Your task to perform on an android device: clear history in the chrome app Image 0: 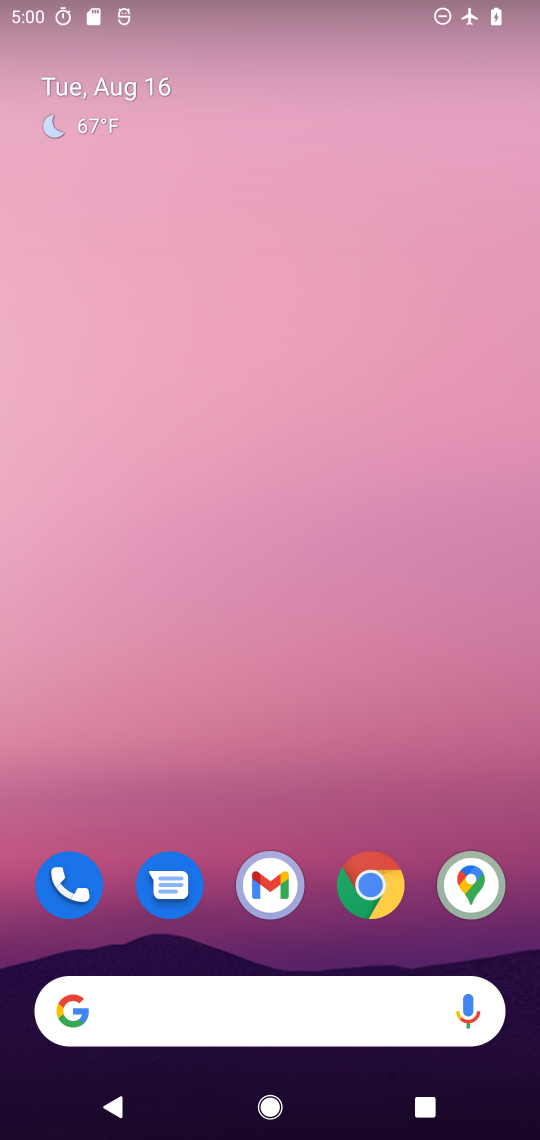
Step 0: drag from (128, 973) to (200, 15)
Your task to perform on an android device: clear history in the chrome app Image 1: 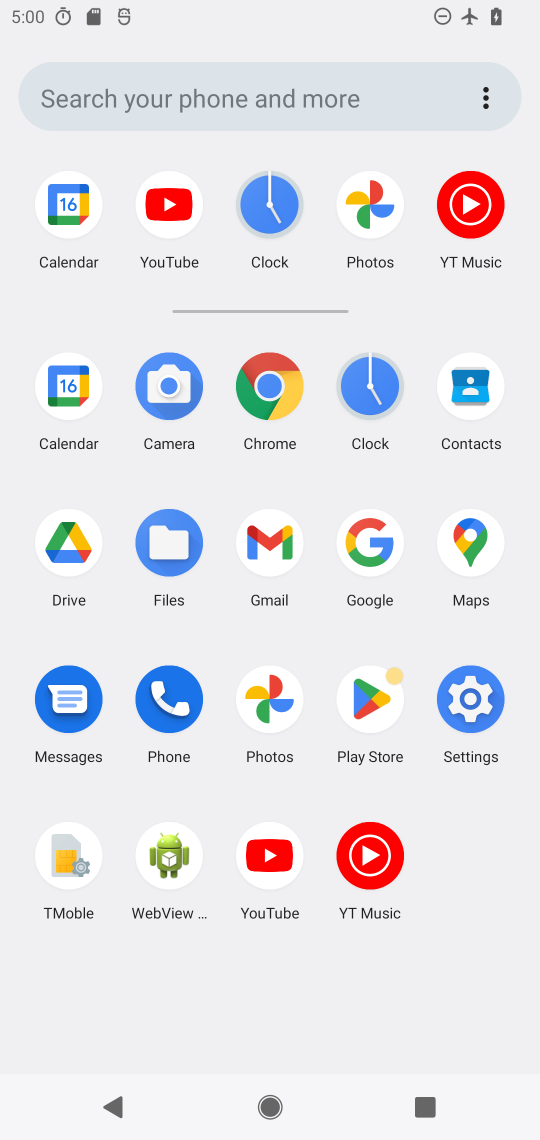
Step 1: click (265, 377)
Your task to perform on an android device: clear history in the chrome app Image 2: 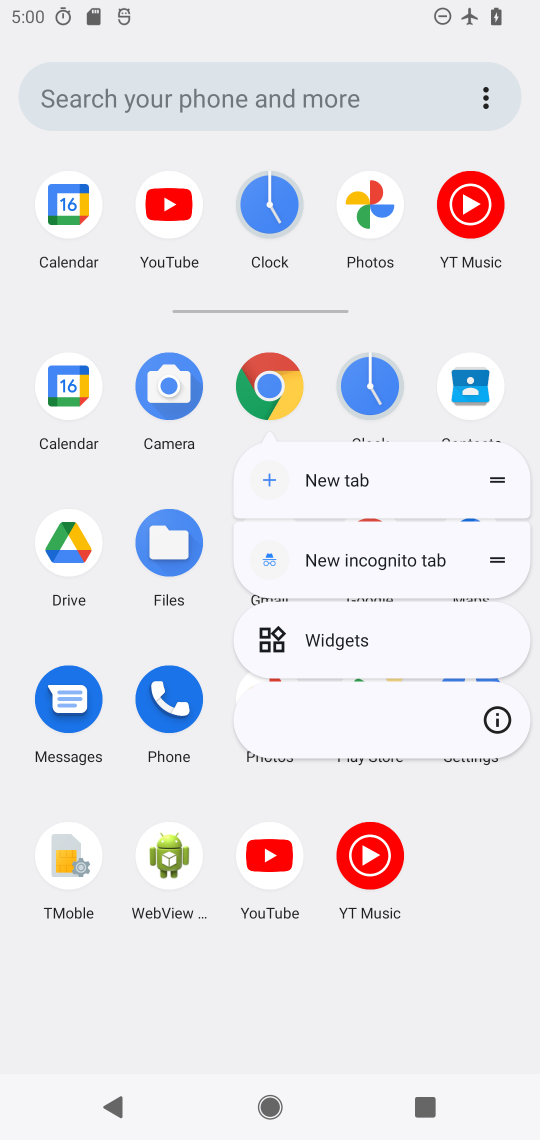
Step 2: click (265, 377)
Your task to perform on an android device: clear history in the chrome app Image 3: 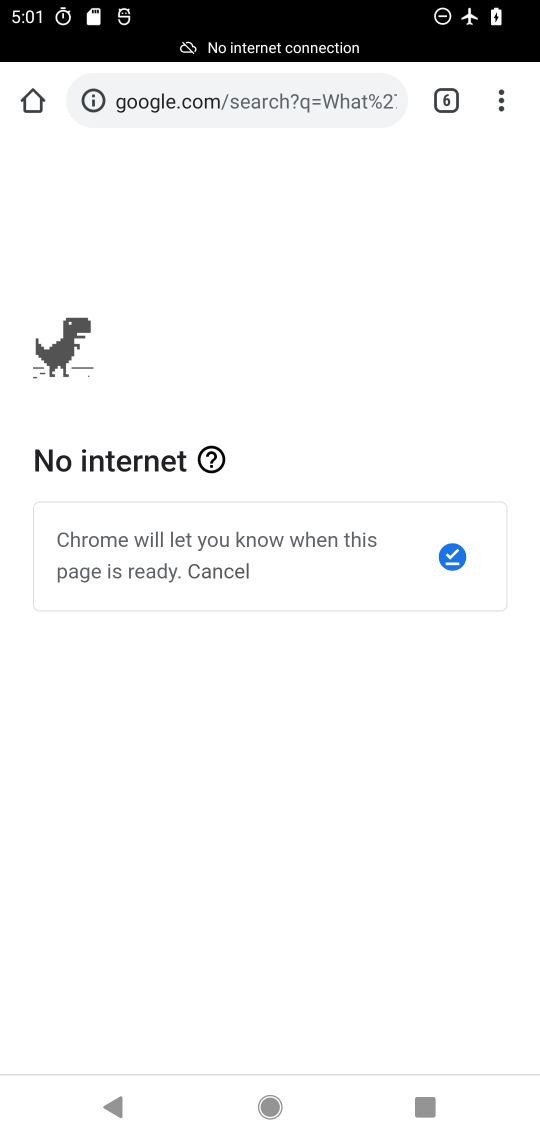
Step 3: click (499, 99)
Your task to perform on an android device: clear history in the chrome app Image 4: 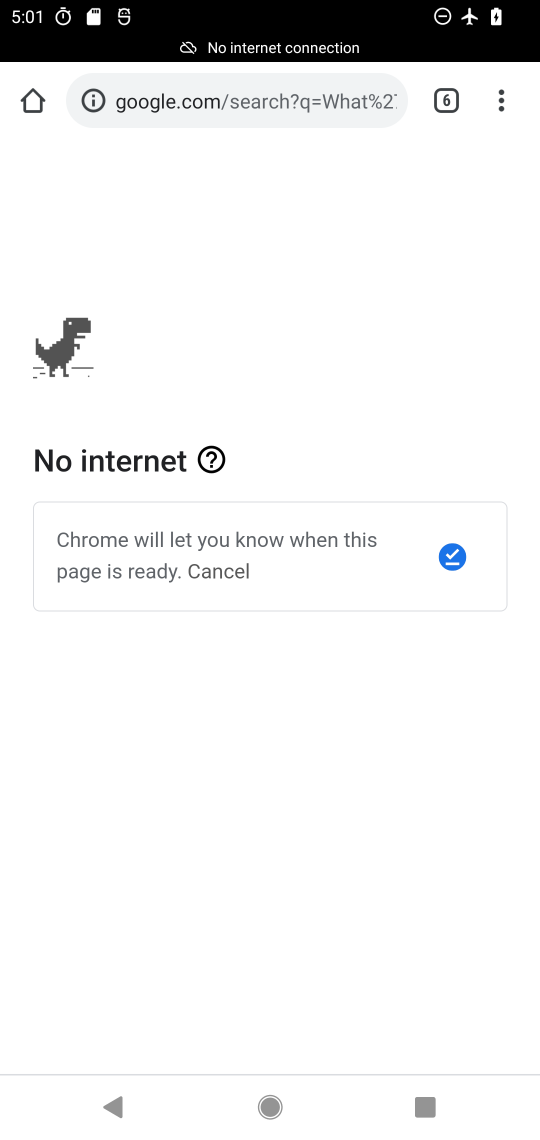
Step 4: click (504, 107)
Your task to perform on an android device: clear history in the chrome app Image 5: 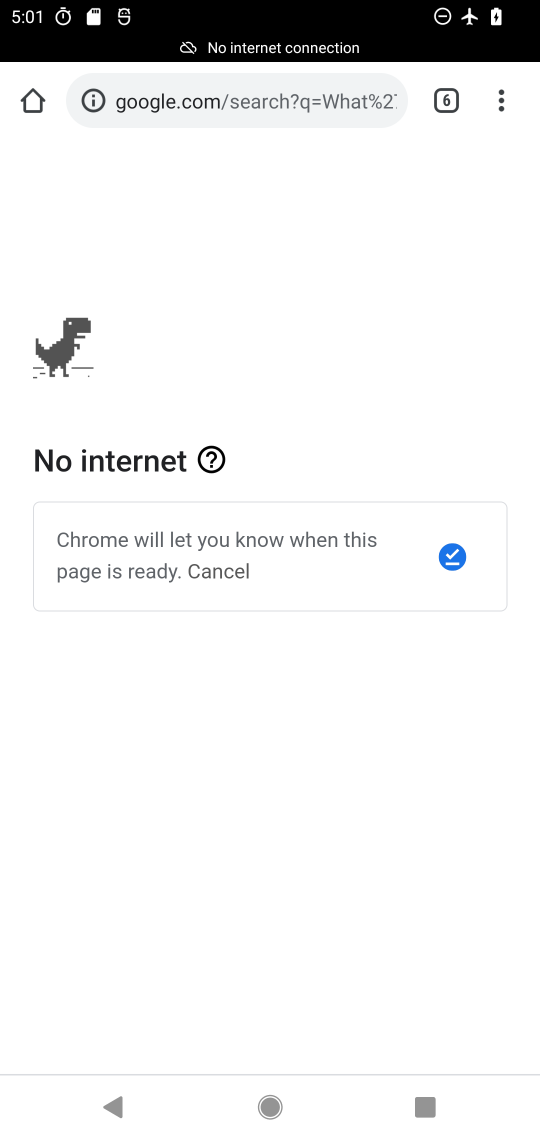
Step 5: click (504, 107)
Your task to perform on an android device: clear history in the chrome app Image 6: 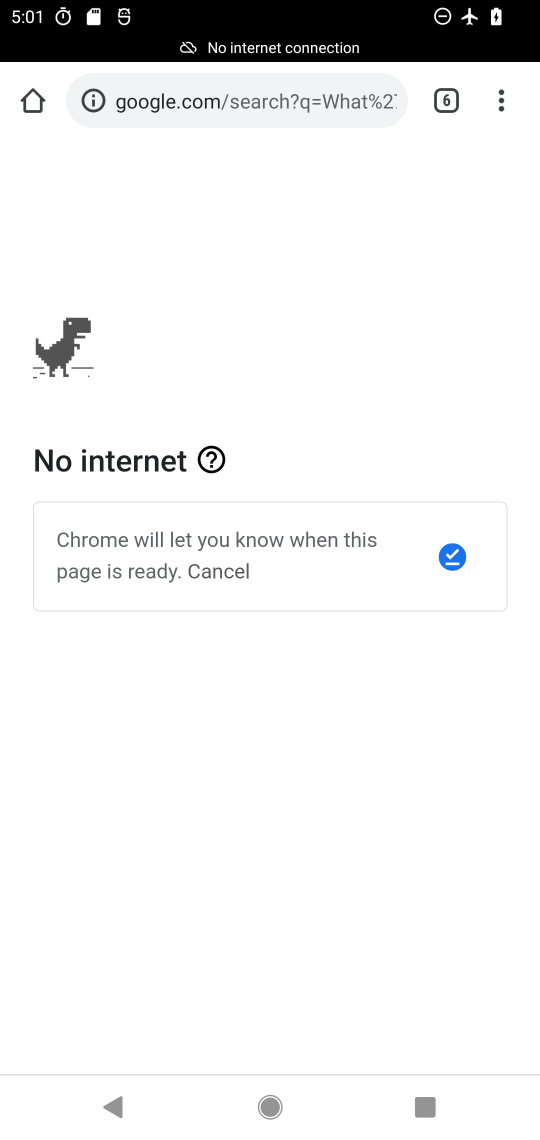
Step 6: click (483, 99)
Your task to perform on an android device: clear history in the chrome app Image 7: 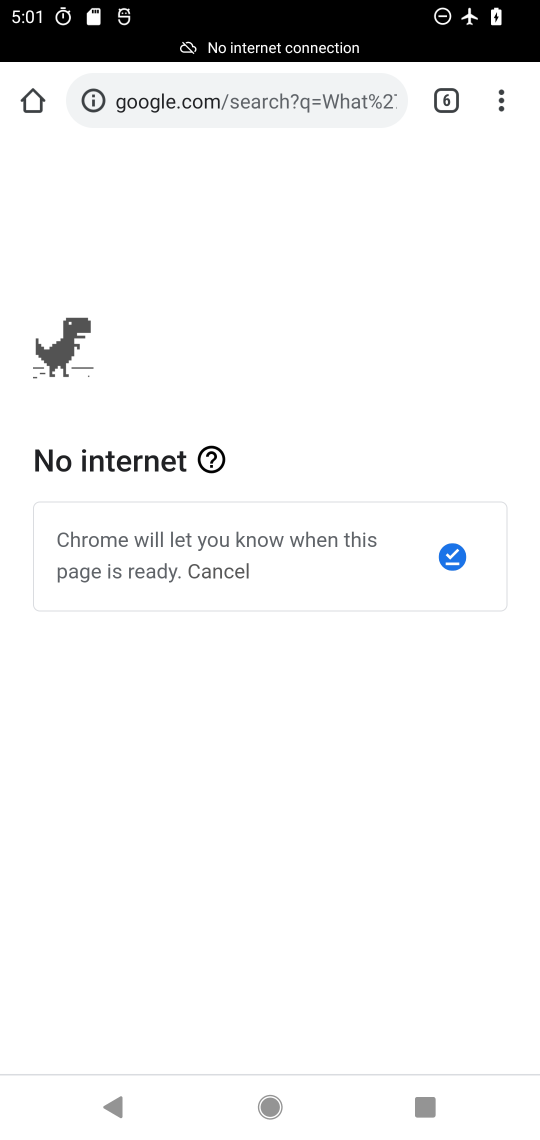
Step 7: click (515, 102)
Your task to perform on an android device: clear history in the chrome app Image 8: 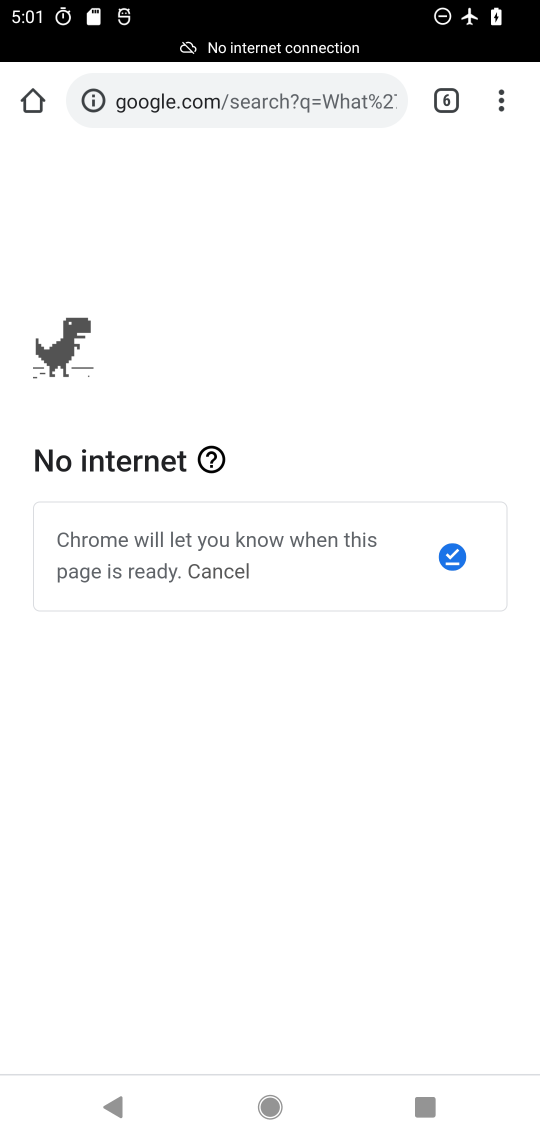
Step 8: click (510, 102)
Your task to perform on an android device: clear history in the chrome app Image 9: 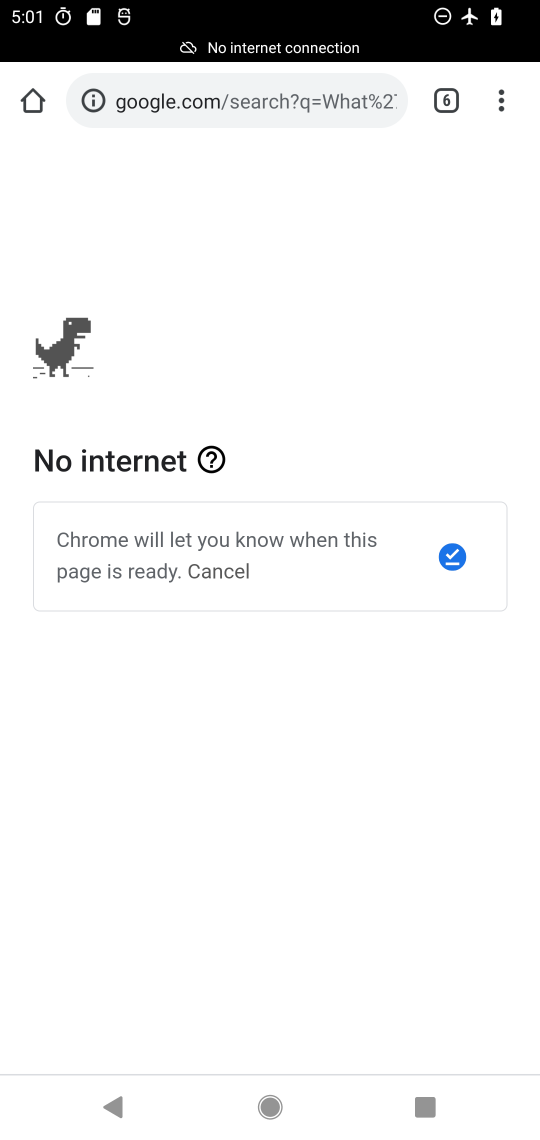
Step 9: click (490, 90)
Your task to perform on an android device: clear history in the chrome app Image 10: 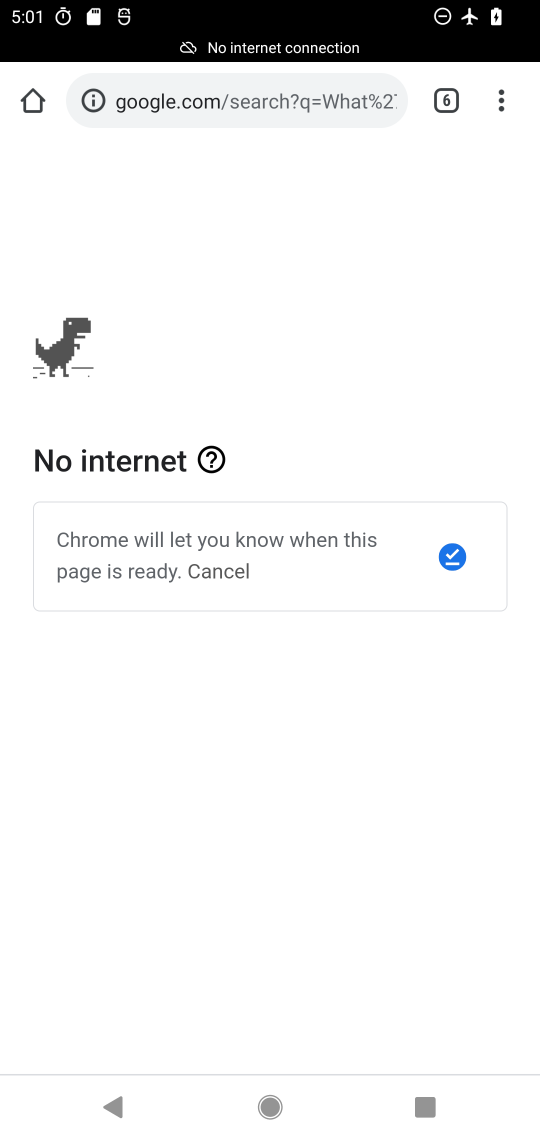
Step 10: click (502, 97)
Your task to perform on an android device: clear history in the chrome app Image 11: 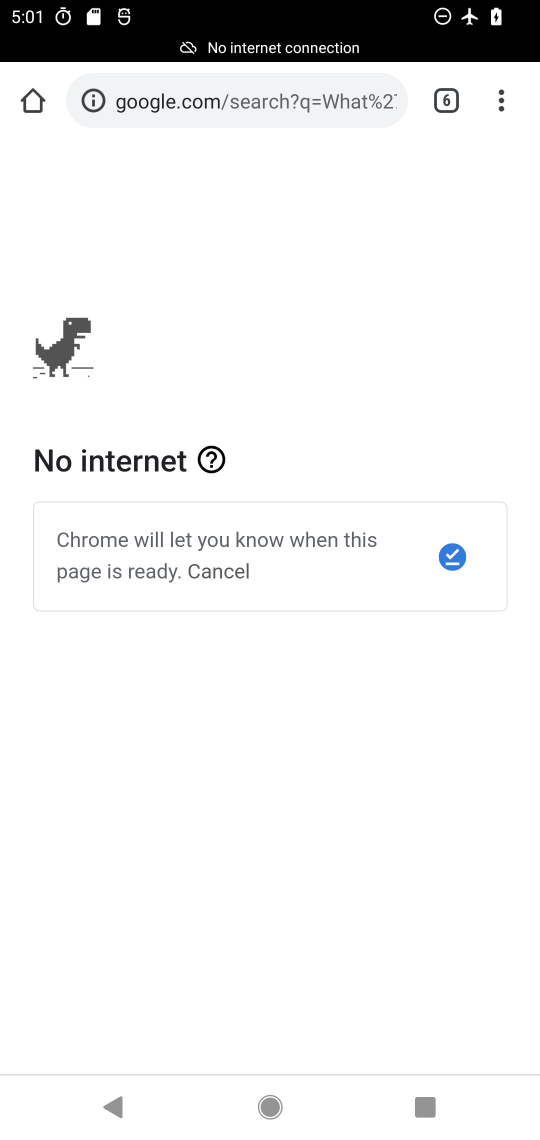
Step 11: click (502, 97)
Your task to perform on an android device: clear history in the chrome app Image 12: 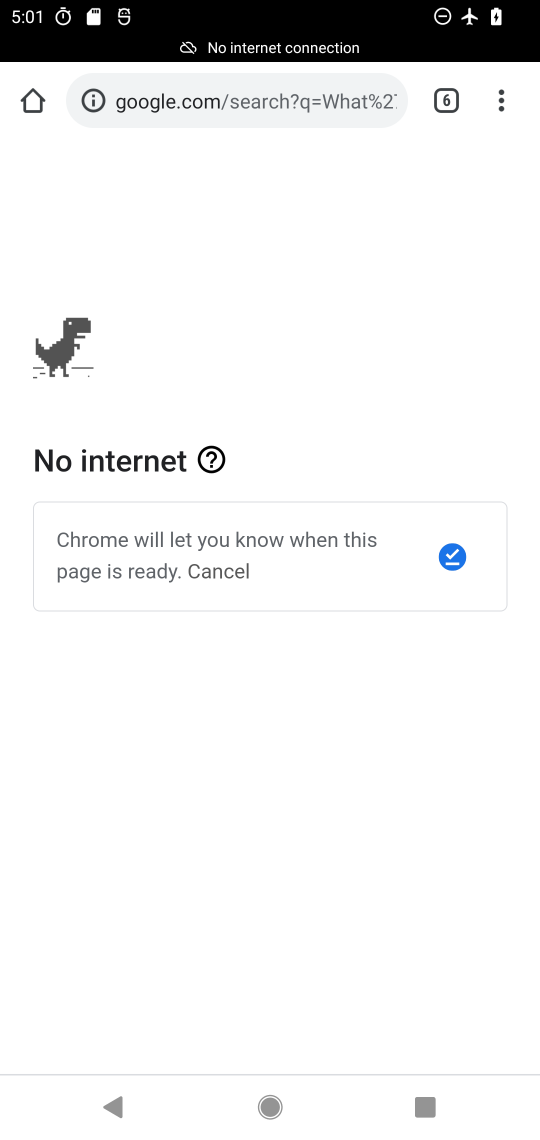
Step 12: click (500, 106)
Your task to perform on an android device: clear history in the chrome app Image 13: 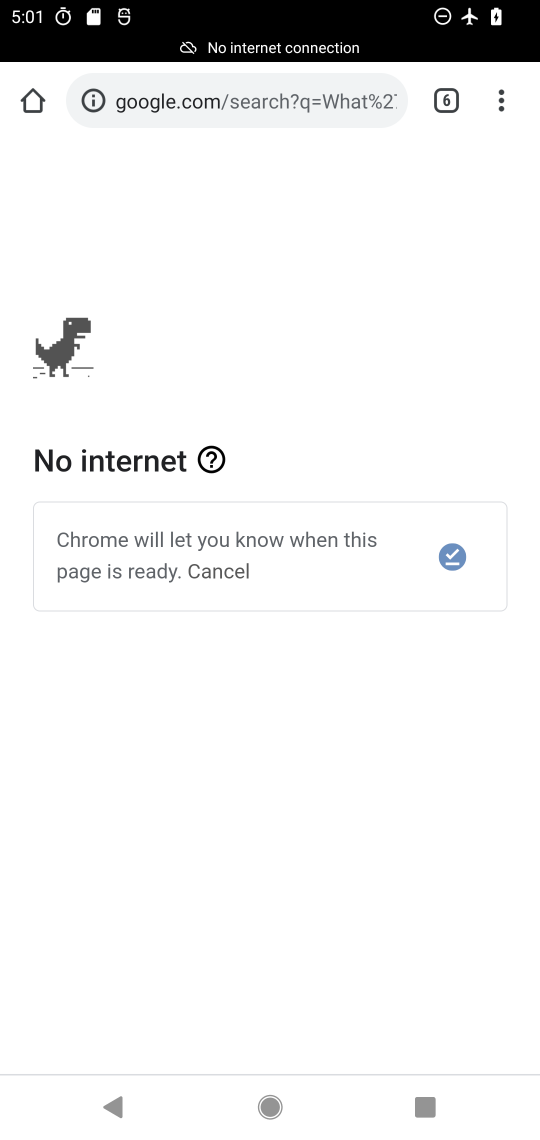
Step 13: click (485, 113)
Your task to perform on an android device: clear history in the chrome app Image 14: 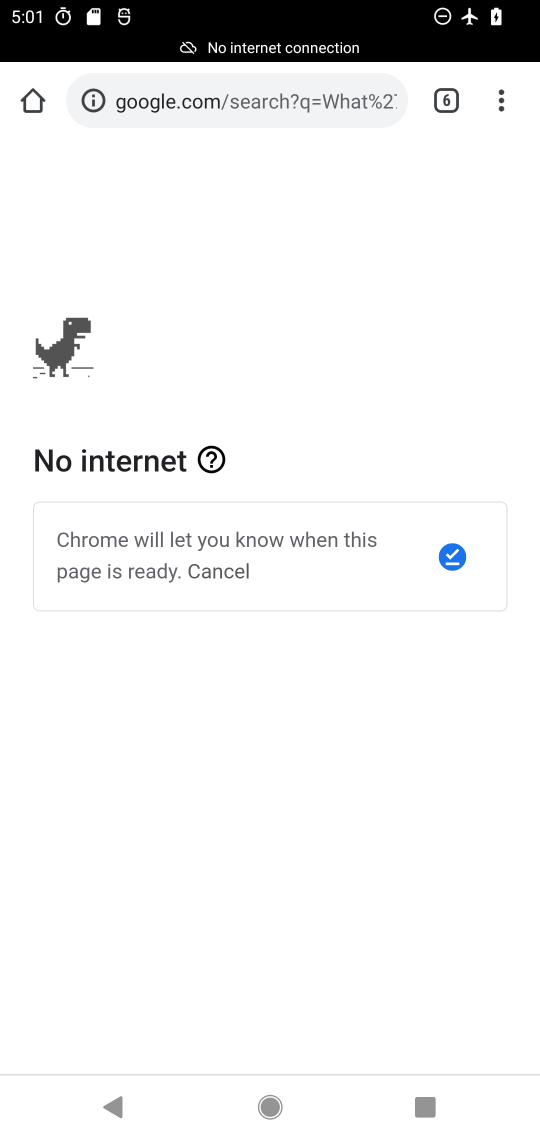
Step 14: click (486, 103)
Your task to perform on an android device: clear history in the chrome app Image 15: 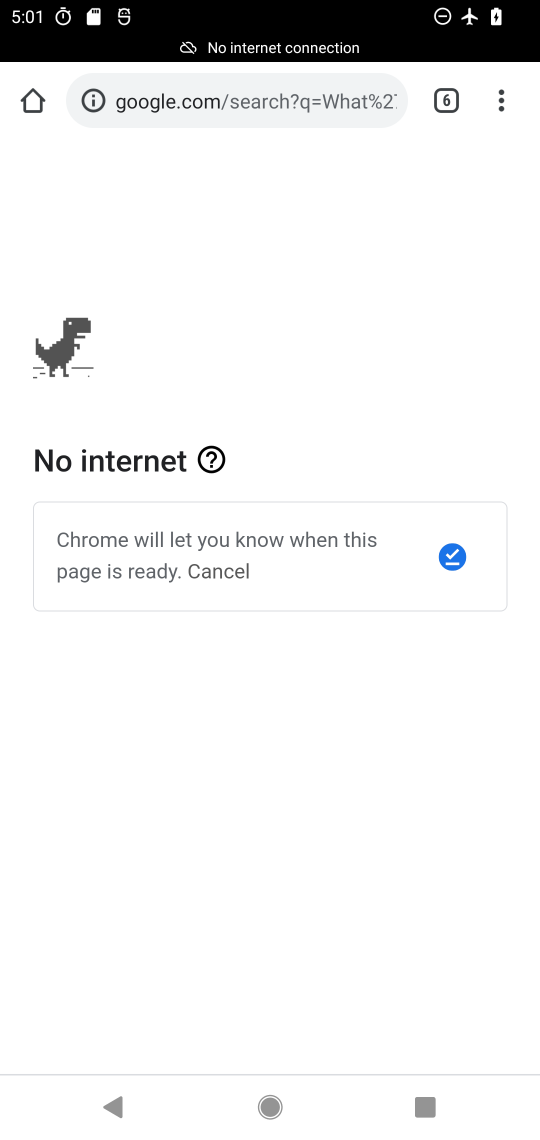
Step 15: click (511, 97)
Your task to perform on an android device: clear history in the chrome app Image 16: 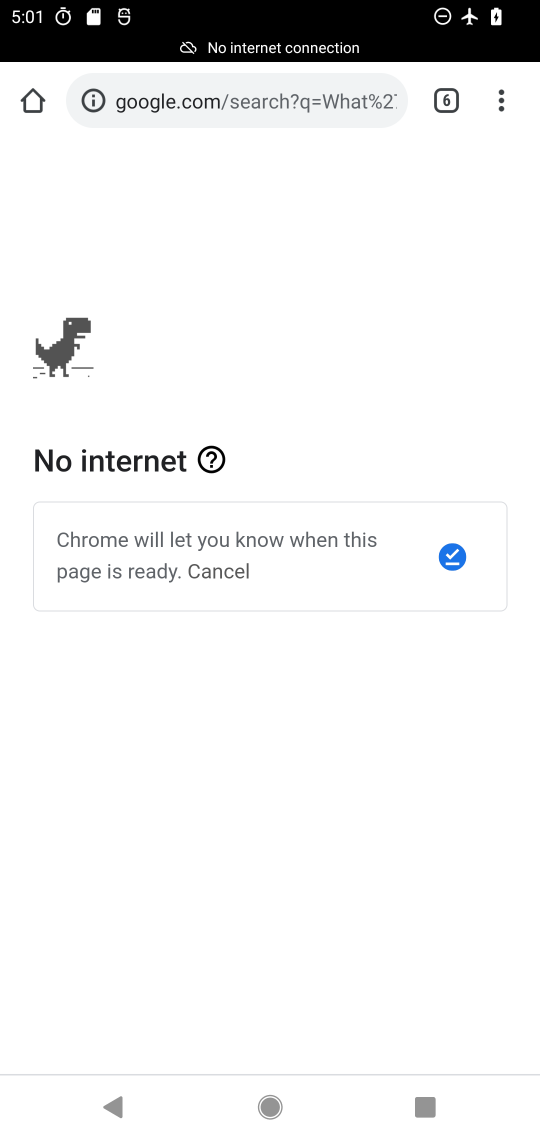
Step 16: click (511, 97)
Your task to perform on an android device: clear history in the chrome app Image 17: 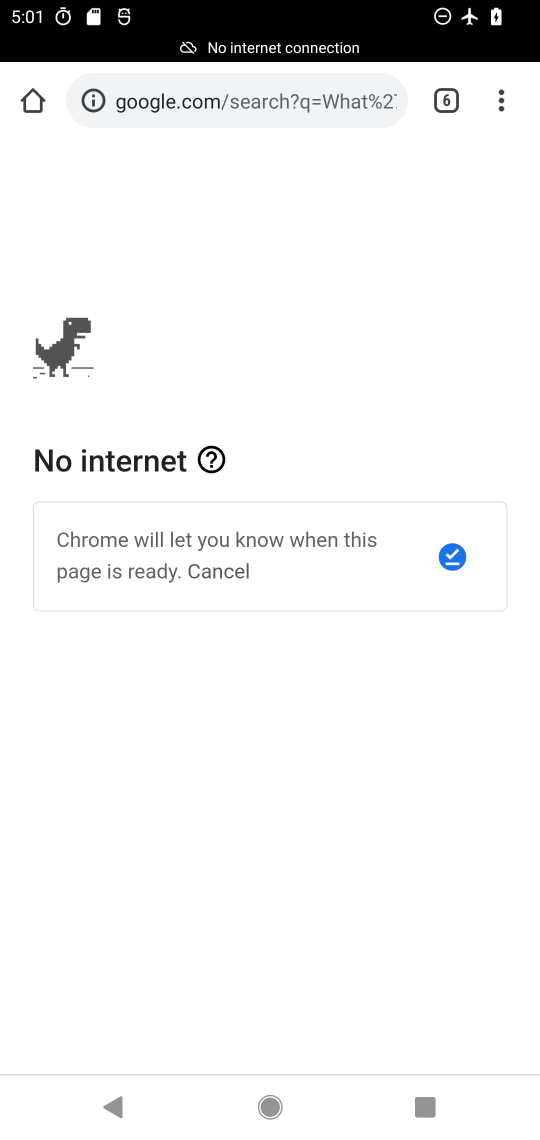
Step 17: click (511, 97)
Your task to perform on an android device: clear history in the chrome app Image 18: 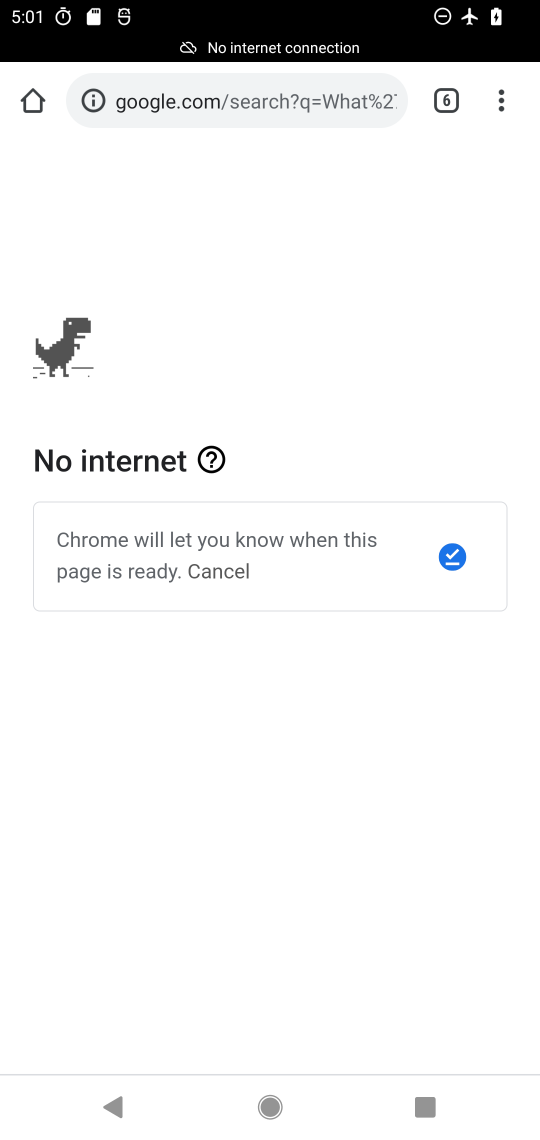
Step 18: click (503, 86)
Your task to perform on an android device: clear history in the chrome app Image 19: 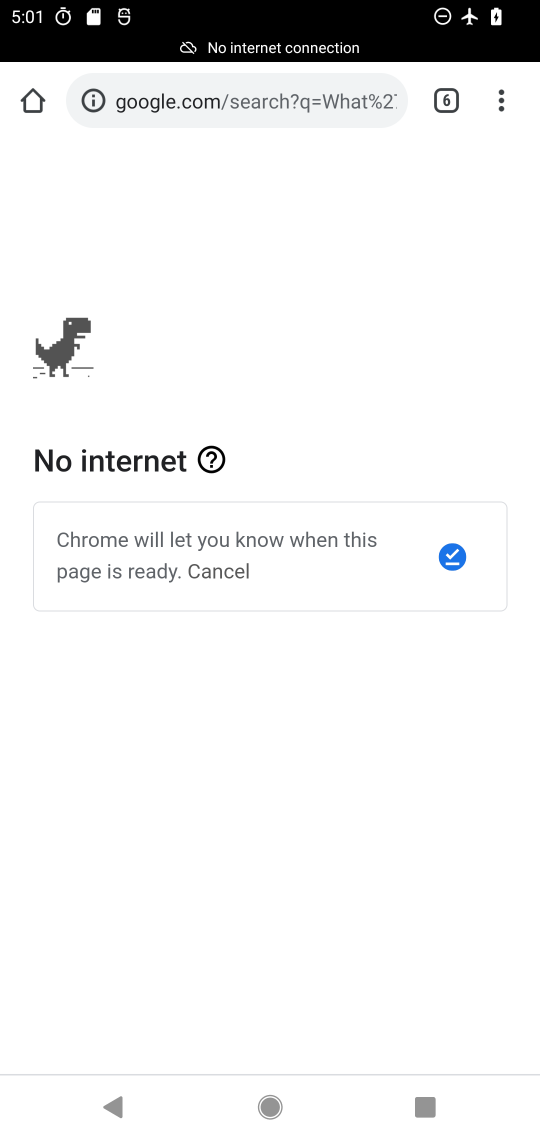
Step 19: click (503, 86)
Your task to perform on an android device: clear history in the chrome app Image 20: 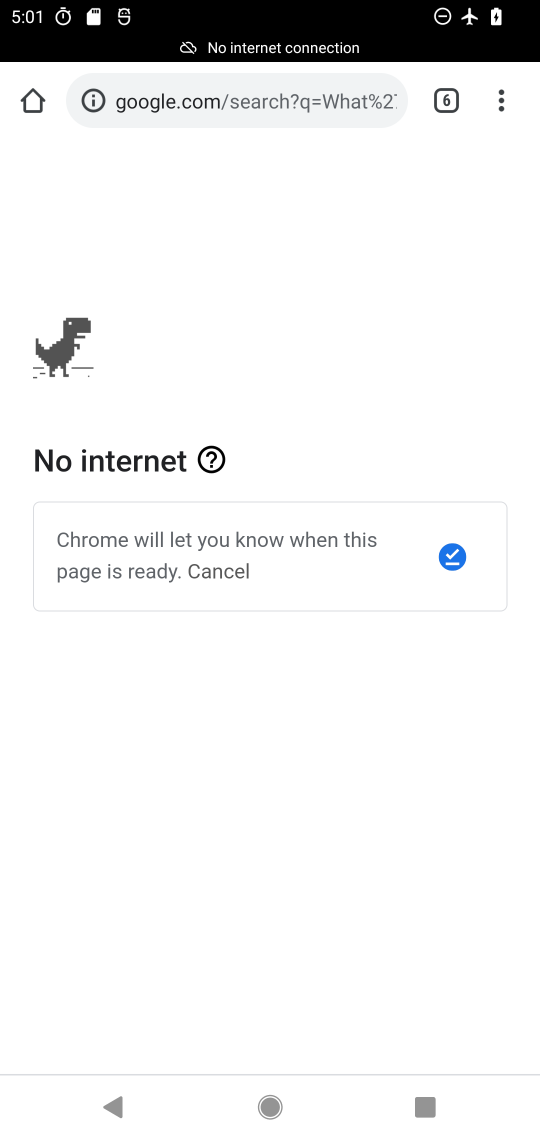
Step 20: click (503, 86)
Your task to perform on an android device: clear history in the chrome app Image 21: 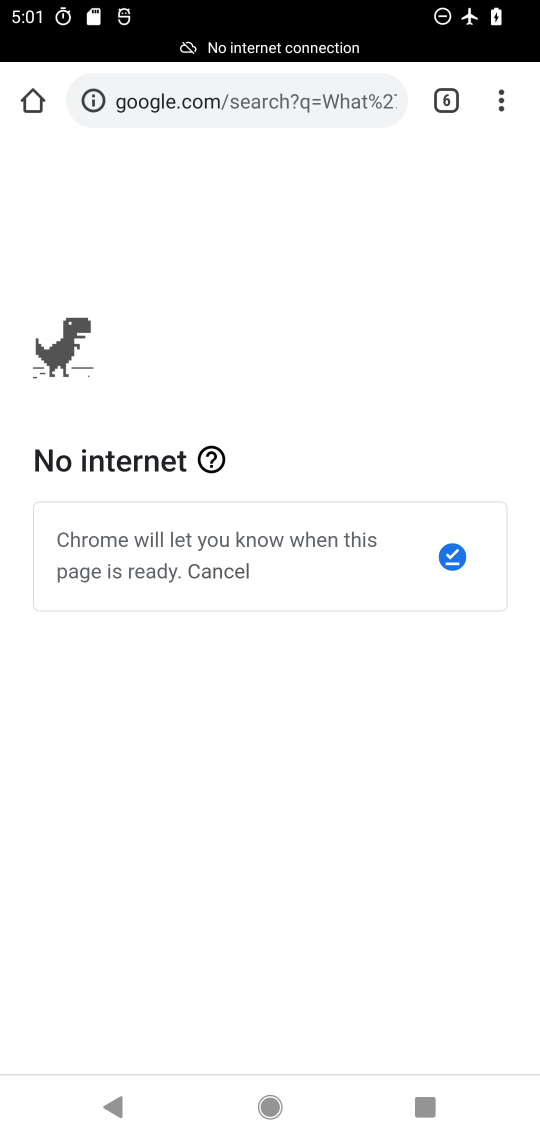
Step 21: click (500, 92)
Your task to perform on an android device: clear history in the chrome app Image 22: 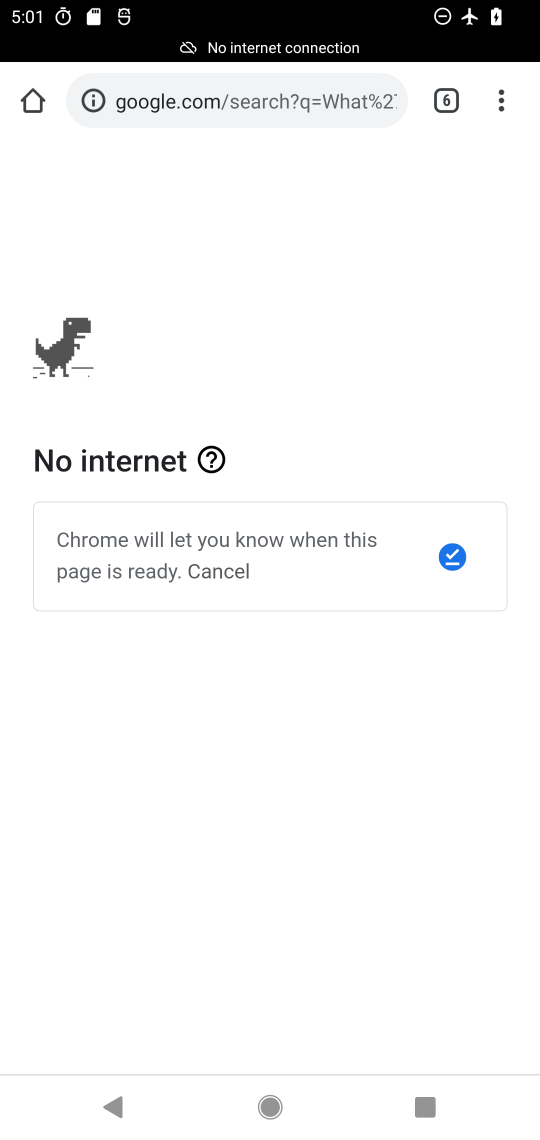
Step 22: click (484, 104)
Your task to perform on an android device: clear history in the chrome app Image 23: 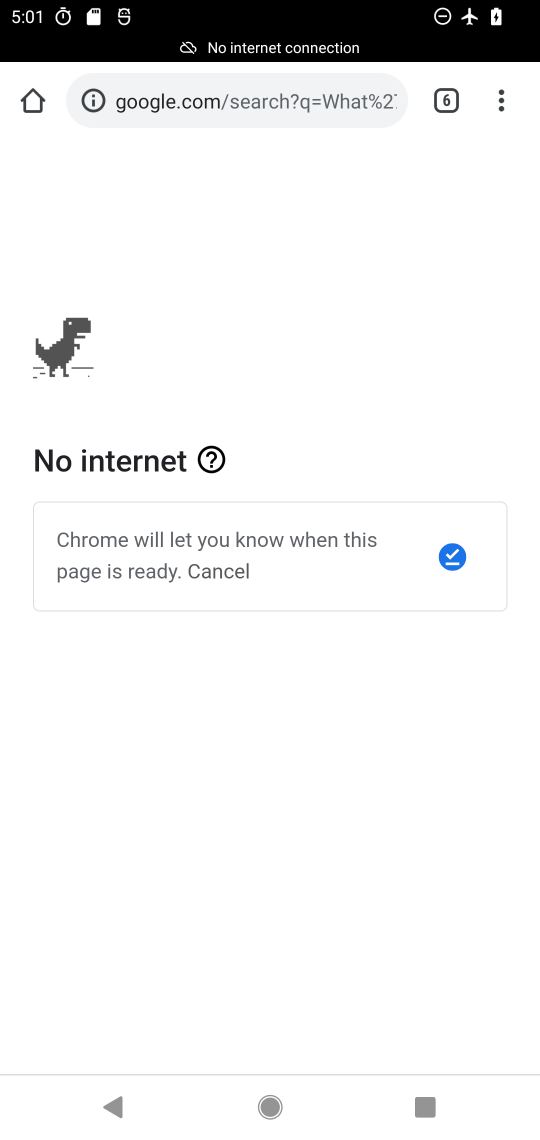
Step 23: click (483, 86)
Your task to perform on an android device: clear history in the chrome app Image 24: 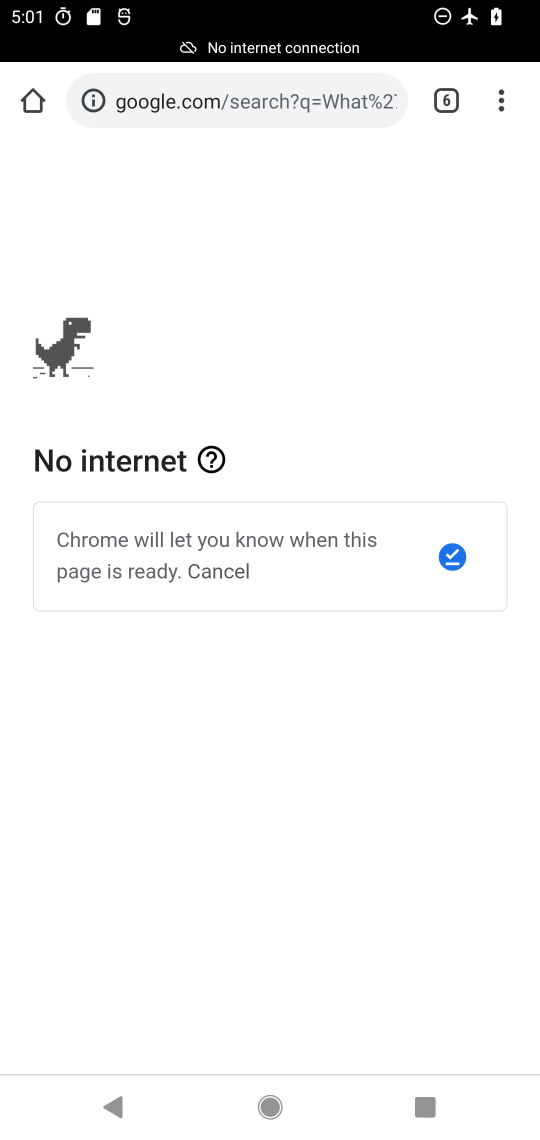
Step 24: click (471, 98)
Your task to perform on an android device: clear history in the chrome app Image 25: 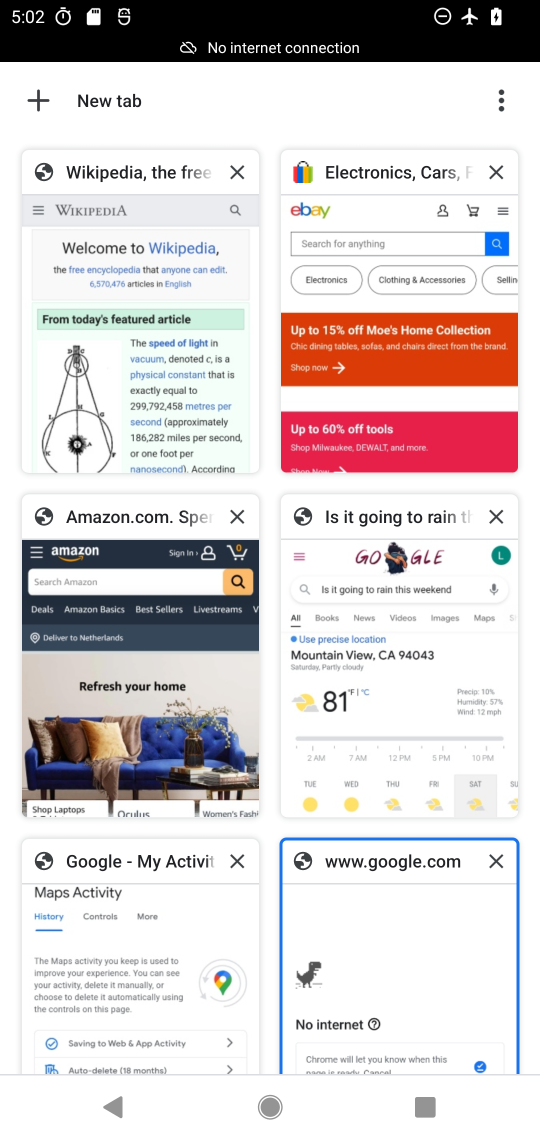
Step 25: click (515, 74)
Your task to perform on an android device: clear history in the chrome app Image 26: 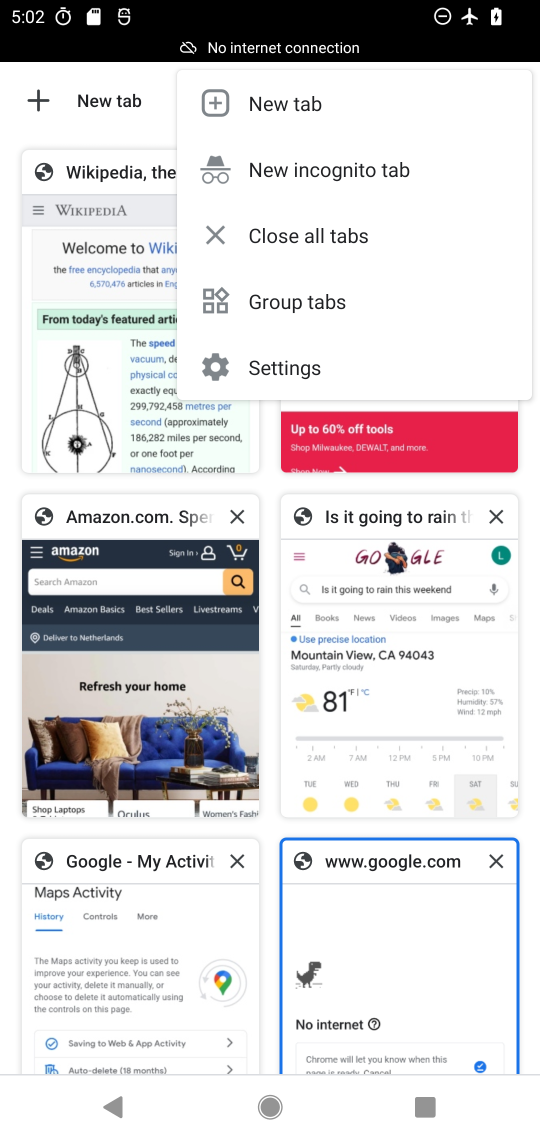
Step 26: click (343, 377)
Your task to perform on an android device: clear history in the chrome app Image 27: 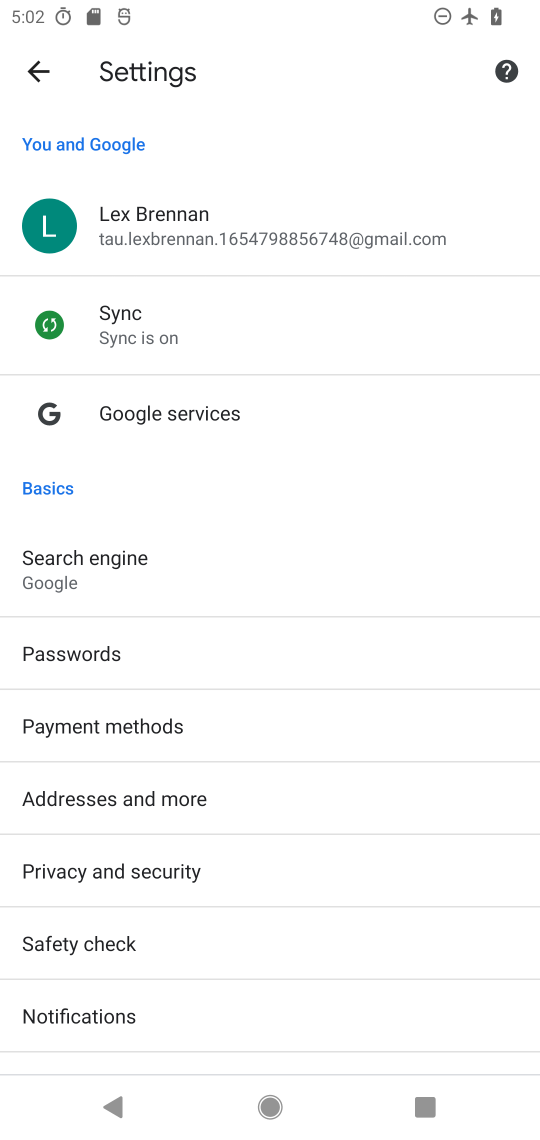
Step 27: drag from (223, 959) to (214, 458)
Your task to perform on an android device: clear history in the chrome app Image 28: 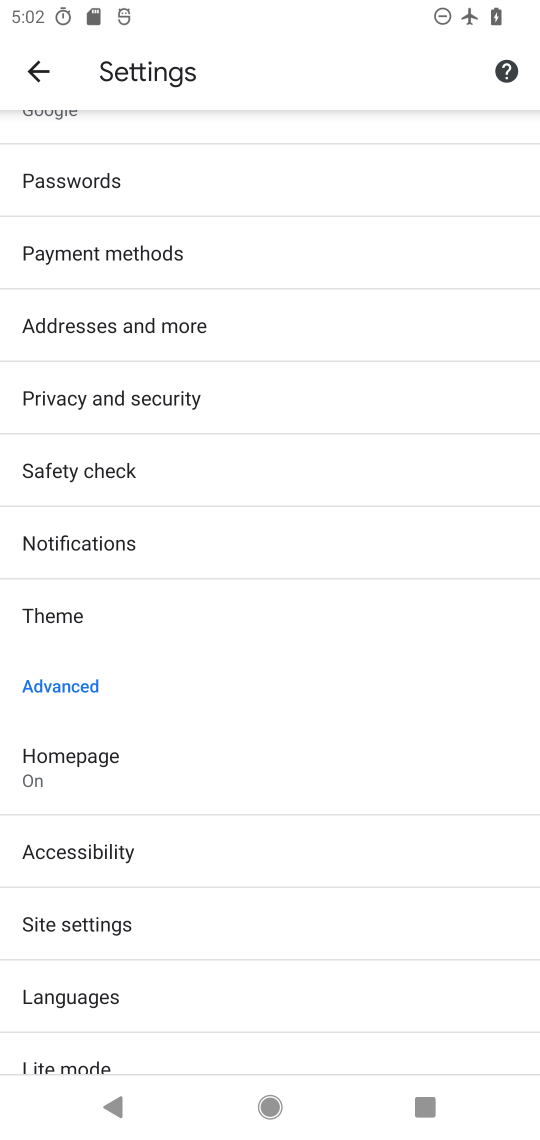
Step 28: drag from (197, 253) to (211, 542)
Your task to perform on an android device: clear history in the chrome app Image 29: 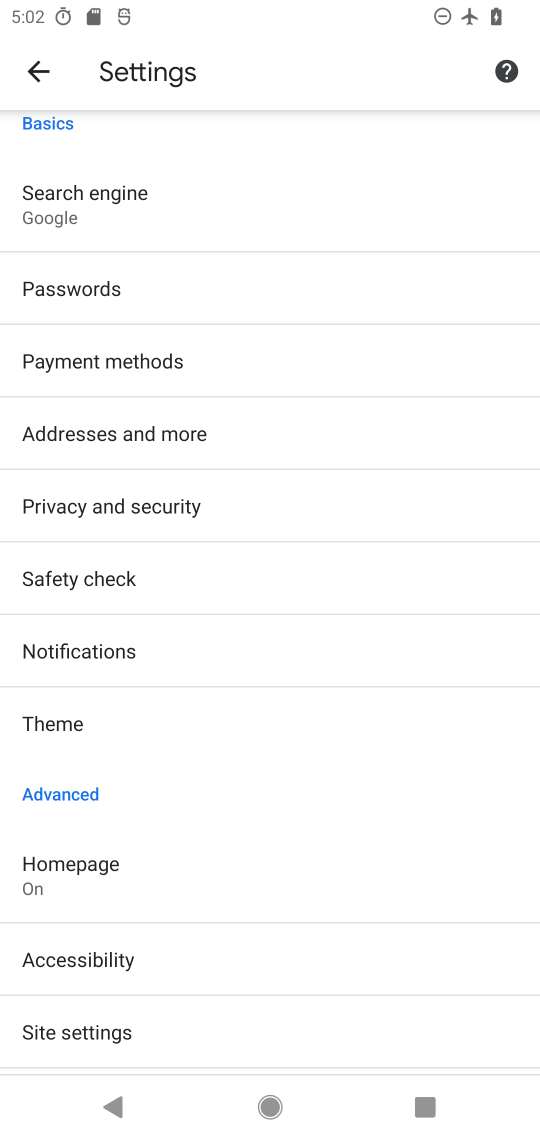
Step 29: click (168, 496)
Your task to perform on an android device: clear history in the chrome app Image 30: 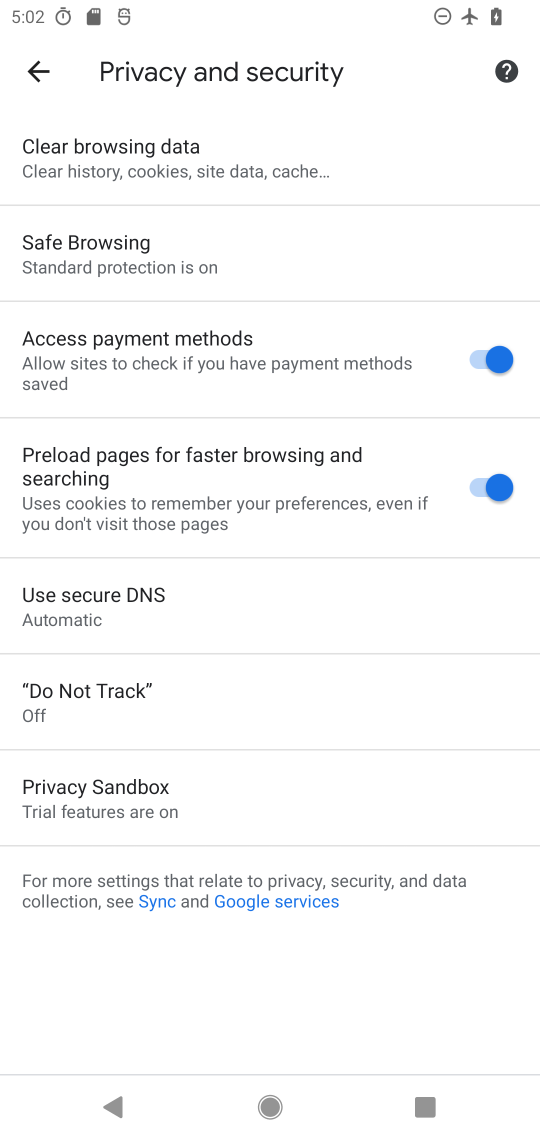
Step 30: click (170, 164)
Your task to perform on an android device: clear history in the chrome app Image 31: 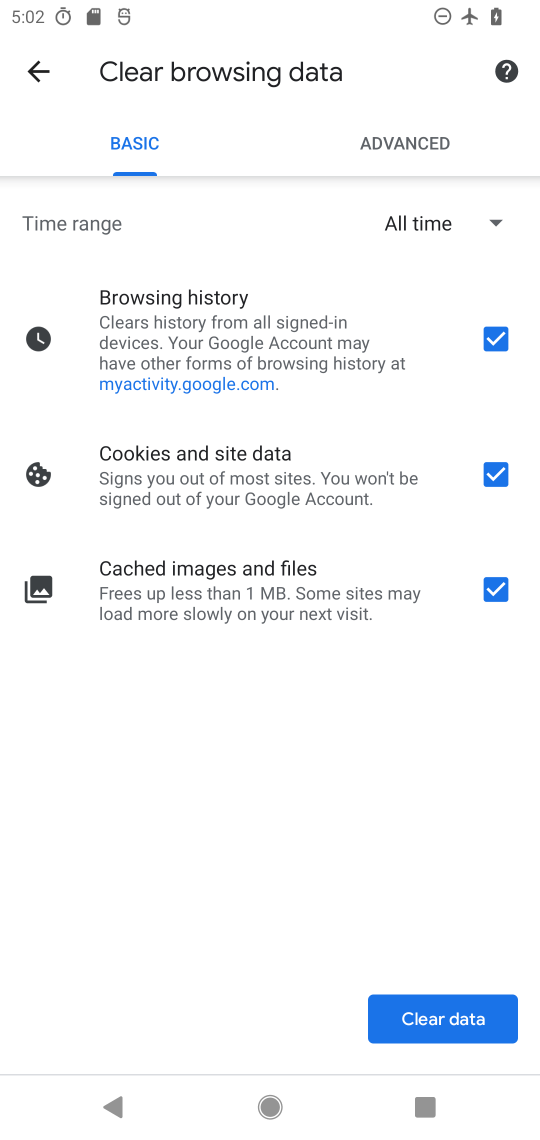
Step 31: click (461, 1012)
Your task to perform on an android device: clear history in the chrome app Image 32: 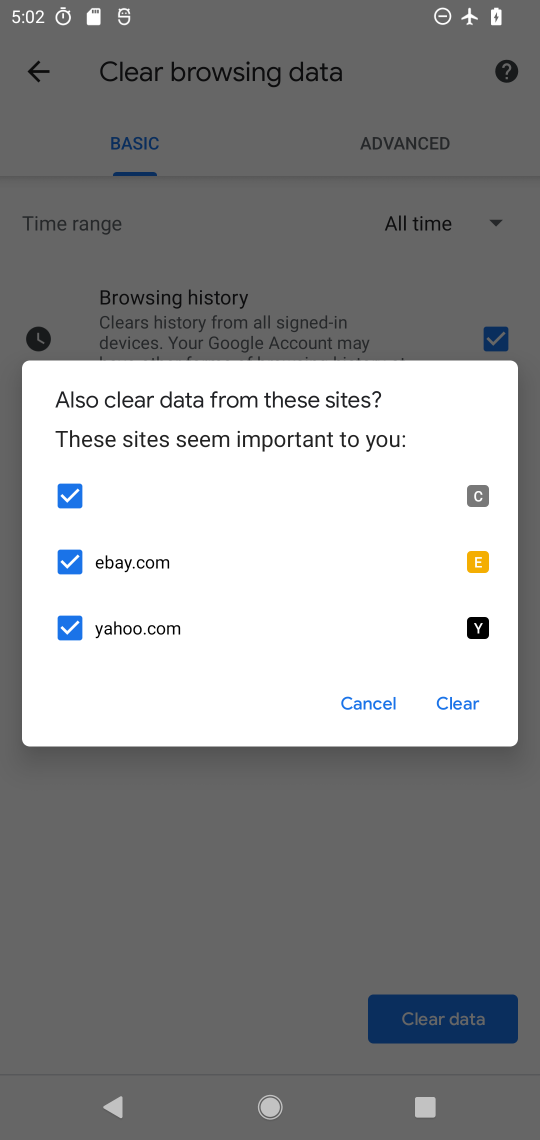
Step 32: click (467, 694)
Your task to perform on an android device: clear history in the chrome app Image 33: 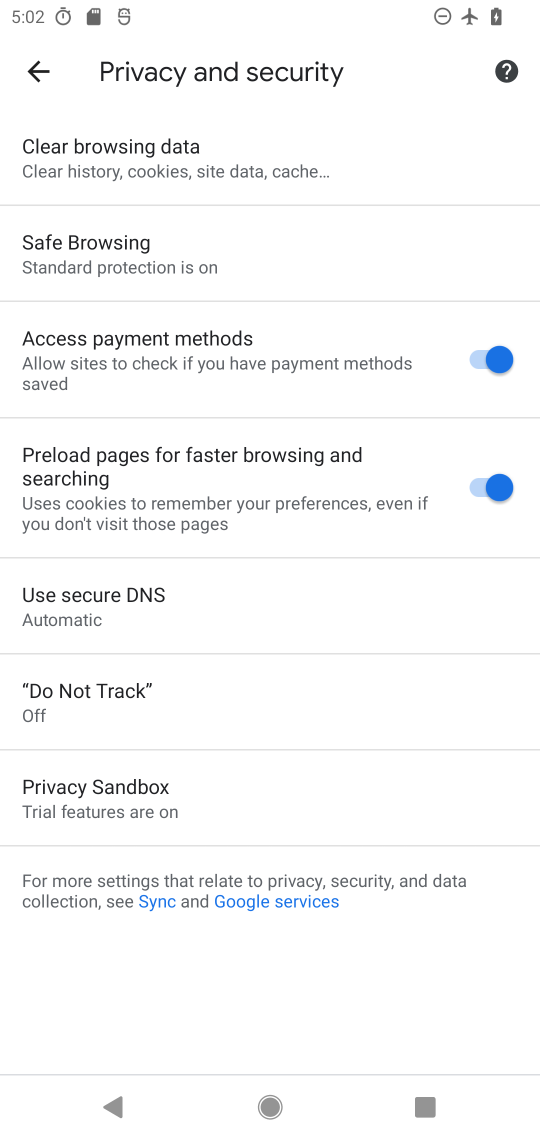
Step 33: task complete